Your task to perform on an android device: turn on javascript in the chrome app Image 0: 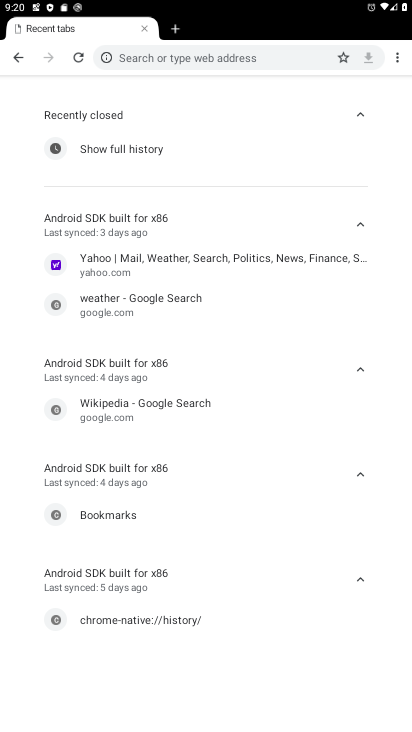
Step 0: press home button
Your task to perform on an android device: turn on javascript in the chrome app Image 1: 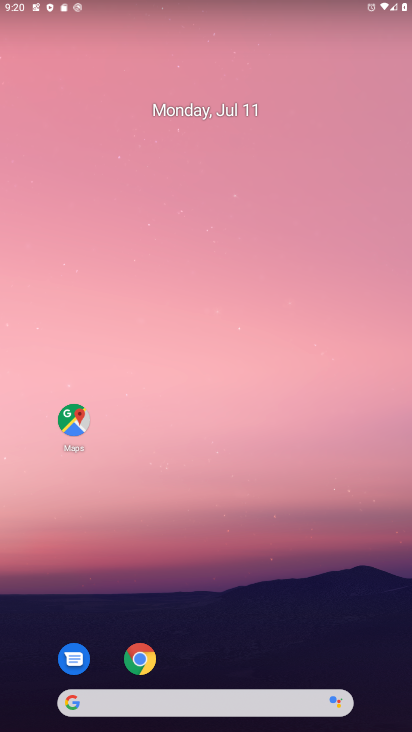
Step 1: click (144, 660)
Your task to perform on an android device: turn on javascript in the chrome app Image 2: 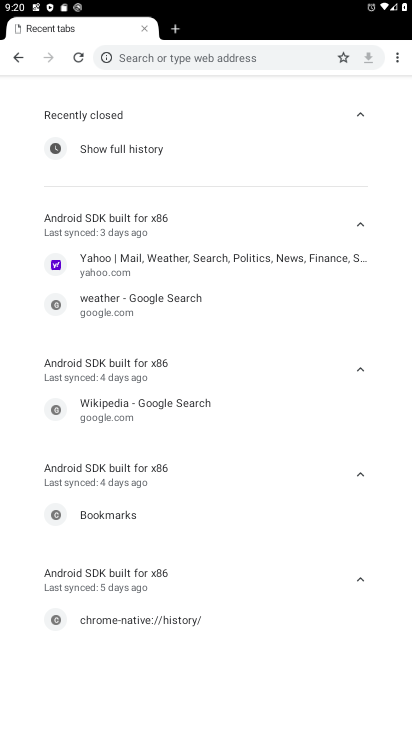
Step 2: click (400, 58)
Your task to perform on an android device: turn on javascript in the chrome app Image 3: 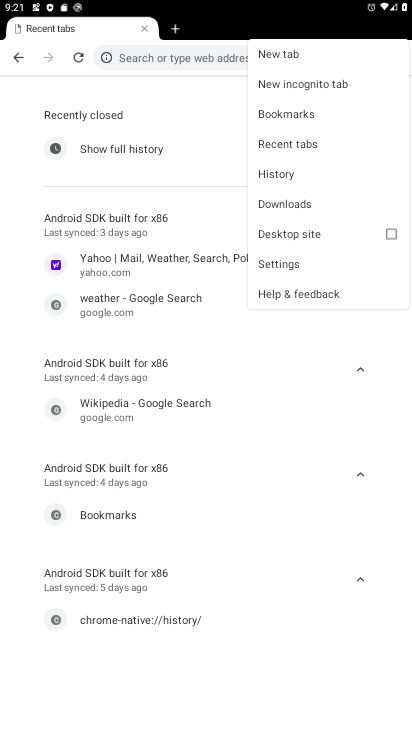
Step 3: click (276, 261)
Your task to perform on an android device: turn on javascript in the chrome app Image 4: 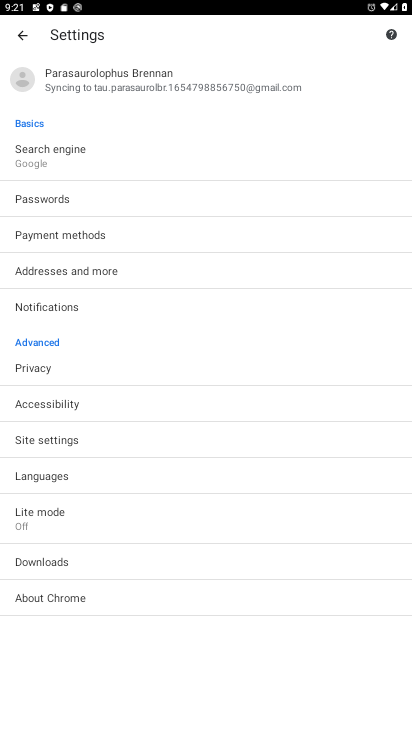
Step 4: click (54, 435)
Your task to perform on an android device: turn on javascript in the chrome app Image 5: 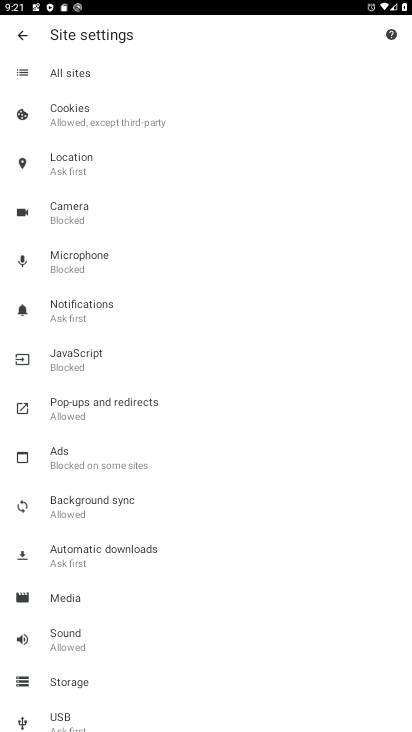
Step 5: click (83, 358)
Your task to perform on an android device: turn on javascript in the chrome app Image 6: 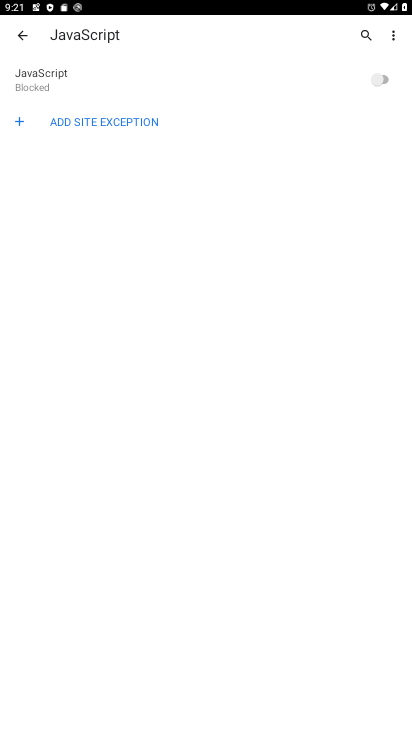
Step 6: click (377, 76)
Your task to perform on an android device: turn on javascript in the chrome app Image 7: 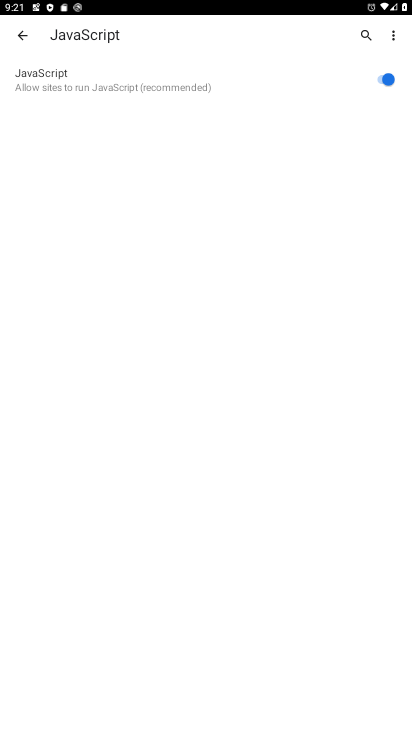
Step 7: task complete